Your task to perform on an android device: toggle translation in the chrome app Image 0: 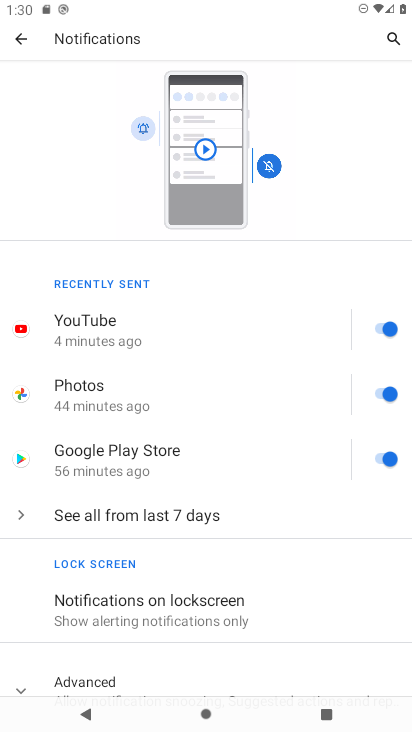
Step 0: drag from (263, 602) to (262, 383)
Your task to perform on an android device: toggle translation in the chrome app Image 1: 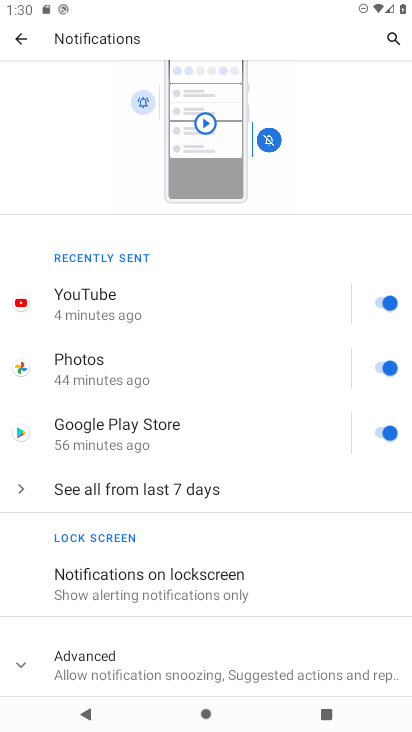
Step 1: press home button
Your task to perform on an android device: toggle translation in the chrome app Image 2: 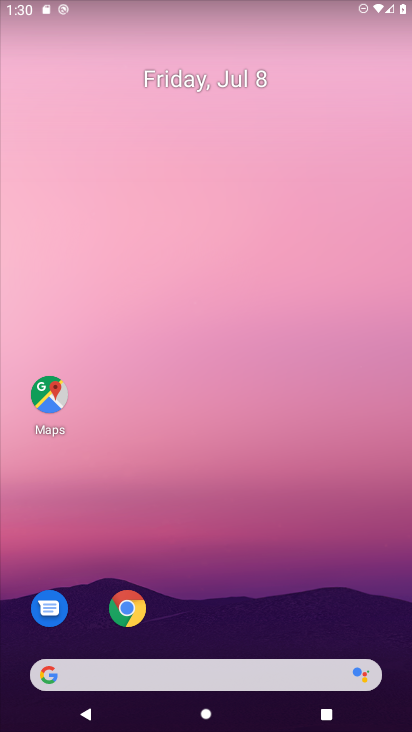
Step 2: click (141, 619)
Your task to perform on an android device: toggle translation in the chrome app Image 3: 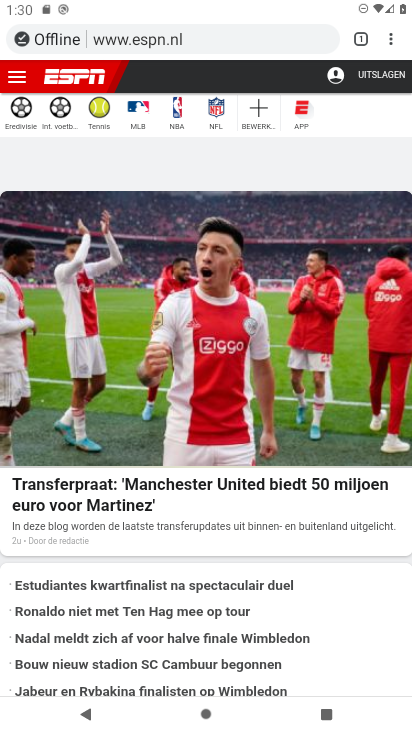
Step 3: click (392, 43)
Your task to perform on an android device: toggle translation in the chrome app Image 4: 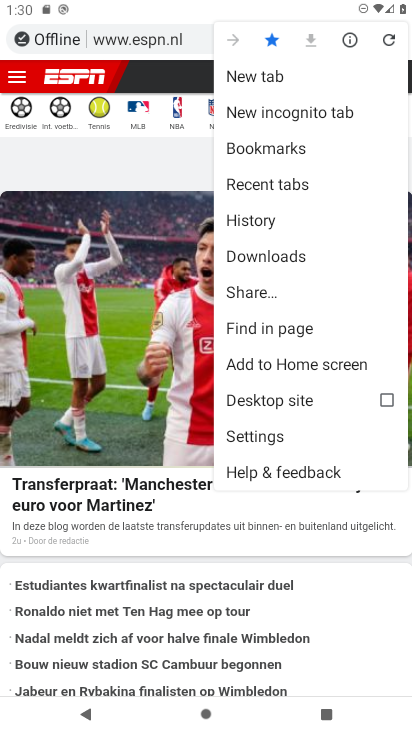
Step 4: click (266, 439)
Your task to perform on an android device: toggle translation in the chrome app Image 5: 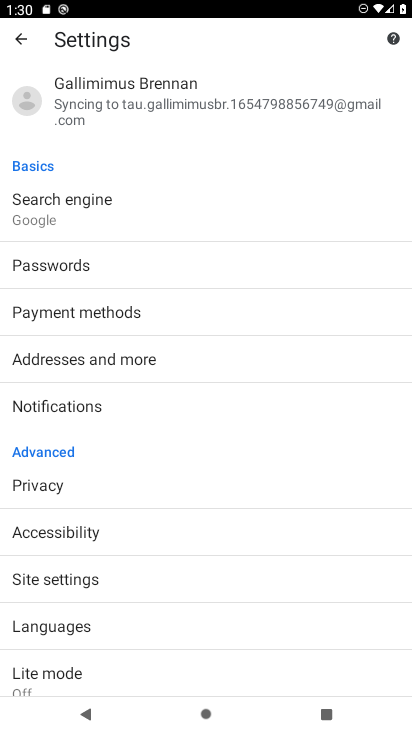
Step 5: click (138, 633)
Your task to perform on an android device: toggle translation in the chrome app Image 6: 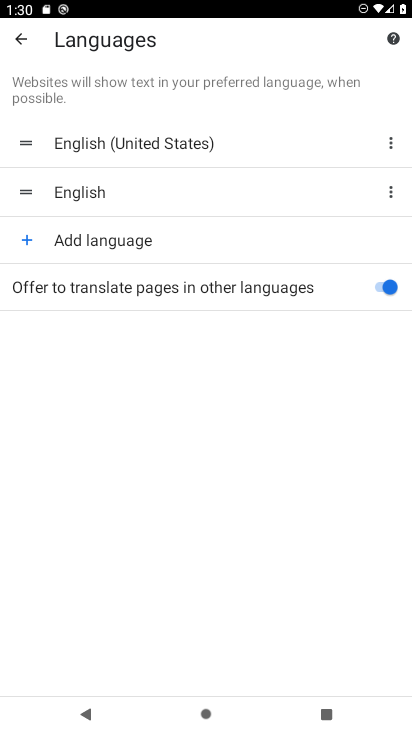
Step 6: click (338, 297)
Your task to perform on an android device: toggle translation in the chrome app Image 7: 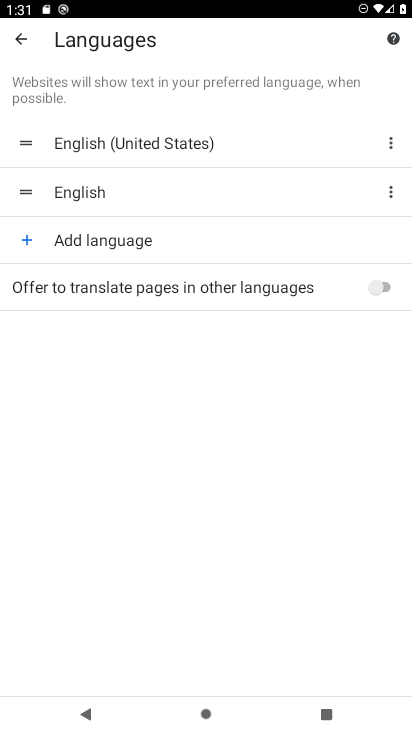
Step 7: task complete